Your task to perform on an android device: Check the settings for the Instagram app Image 0: 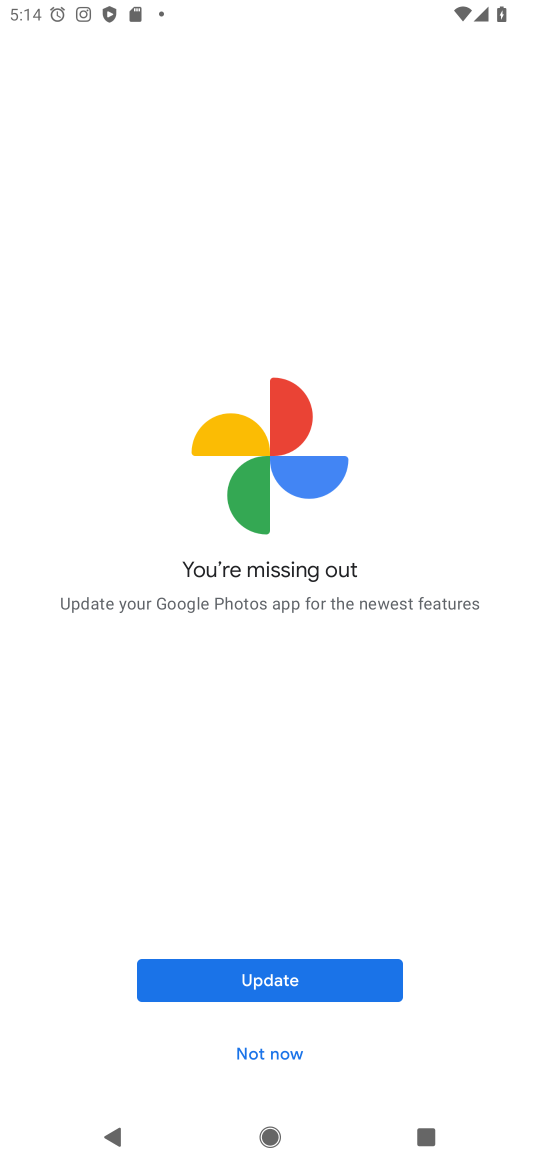
Step 0: press home button
Your task to perform on an android device: Check the settings for the Instagram app Image 1: 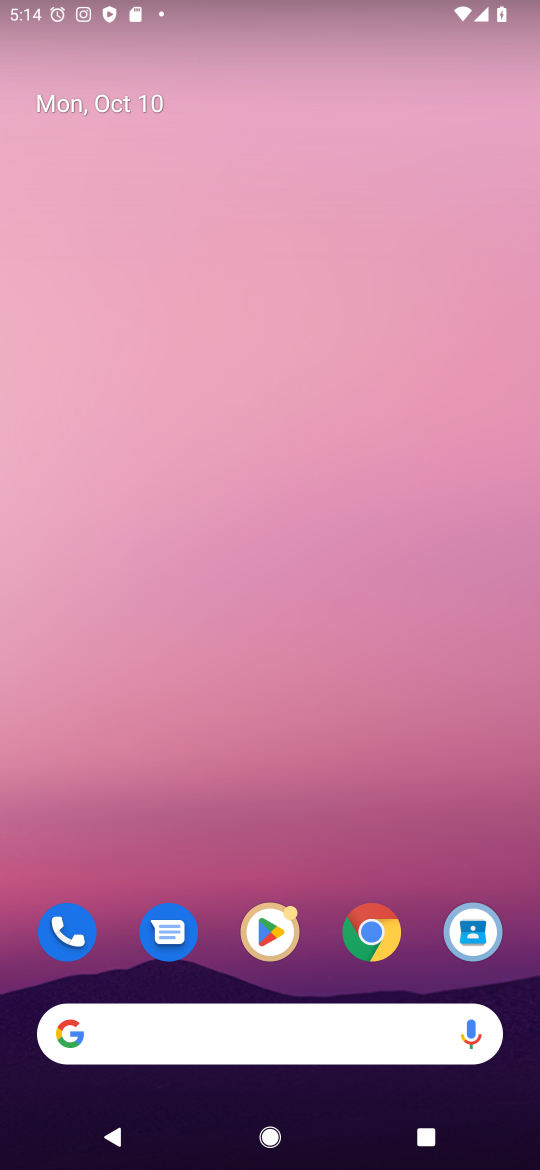
Step 1: drag from (440, 842) to (411, 139)
Your task to perform on an android device: Check the settings for the Instagram app Image 2: 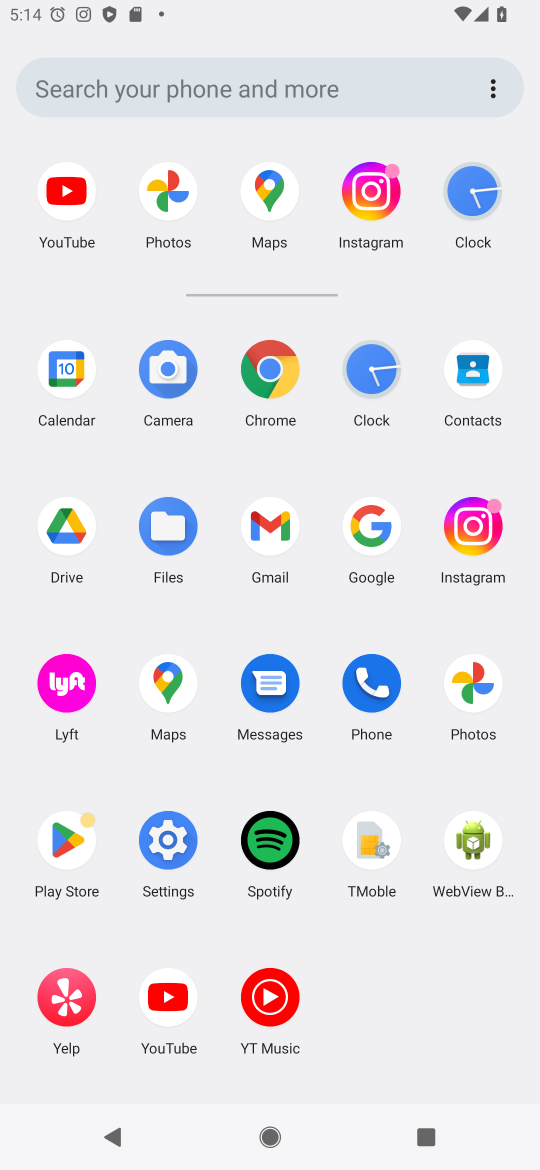
Step 2: click (483, 522)
Your task to perform on an android device: Check the settings for the Instagram app Image 3: 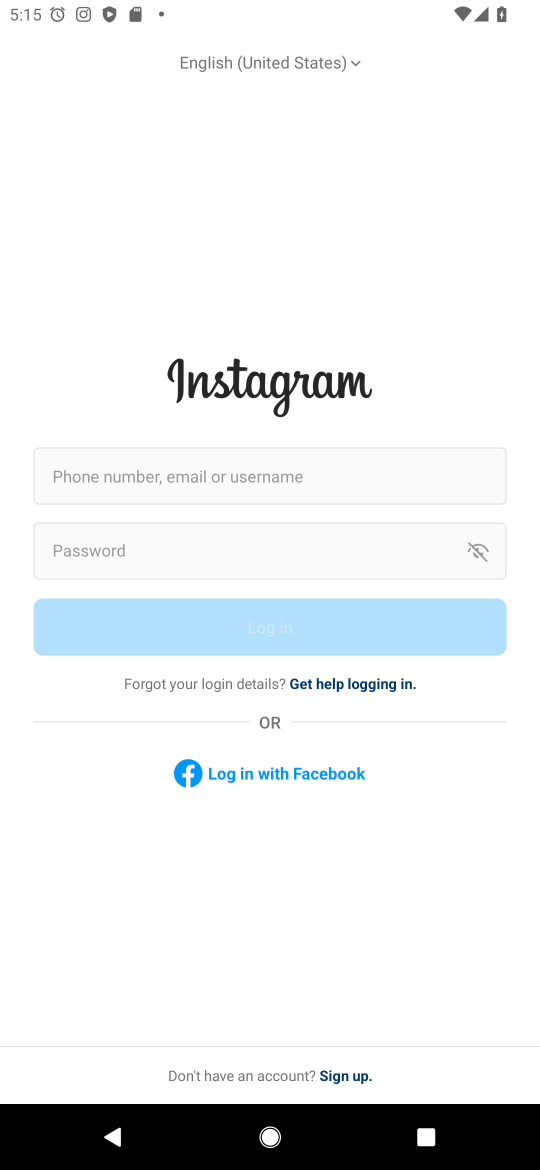
Step 3: task complete